Your task to perform on an android device: see tabs open on other devices in the chrome app Image 0: 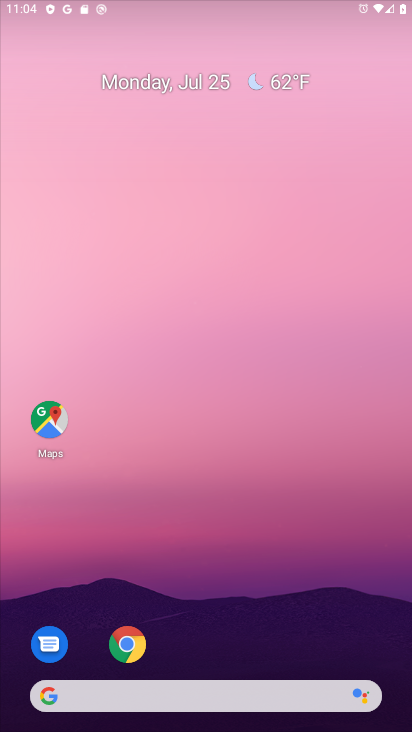
Step 0: drag from (297, 632) to (292, 135)
Your task to perform on an android device: see tabs open on other devices in the chrome app Image 1: 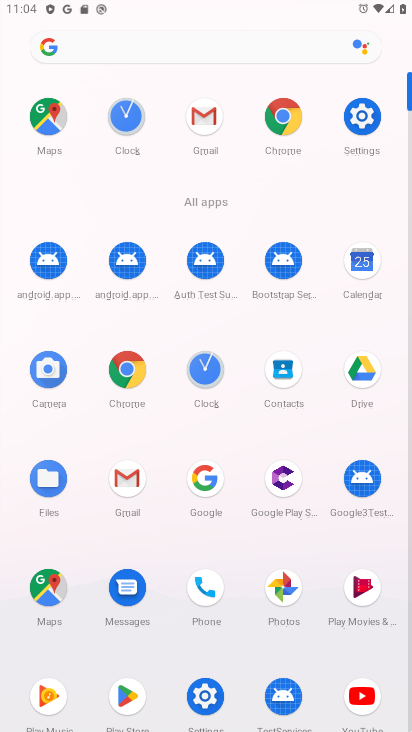
Step 1: click (283, 110)
Your task to perform on an android device: see tabs open on other devices in the chrome app Image 2: 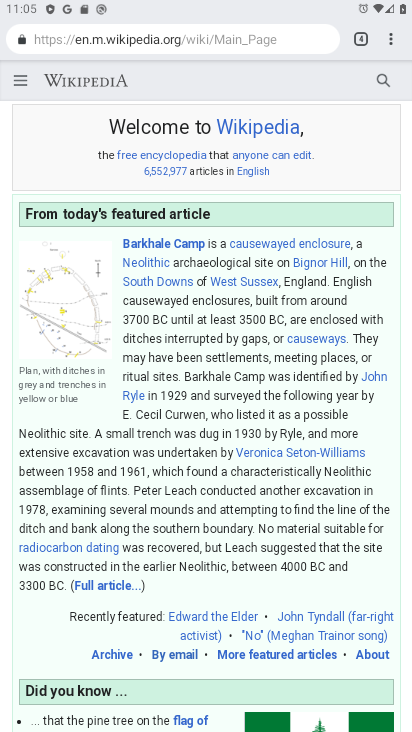
Step 2: press home button
Your task to perform on an android device: see tabs open on other devices in the chrome app Image 3: 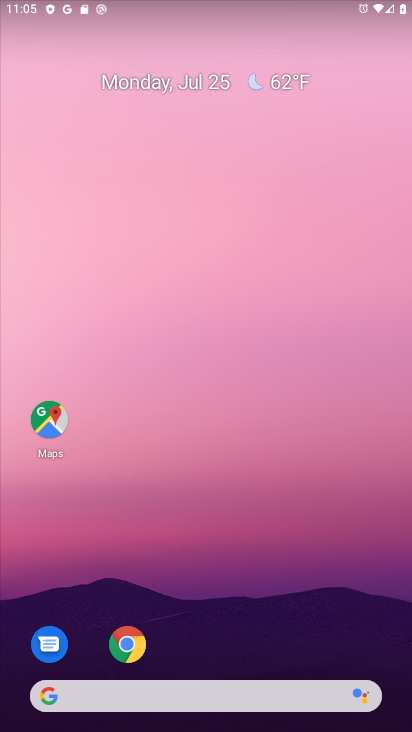
Step 3: click (123, 650)
Your task to perform on an android device: see tabs open on other devices in the chrome app Image 4: 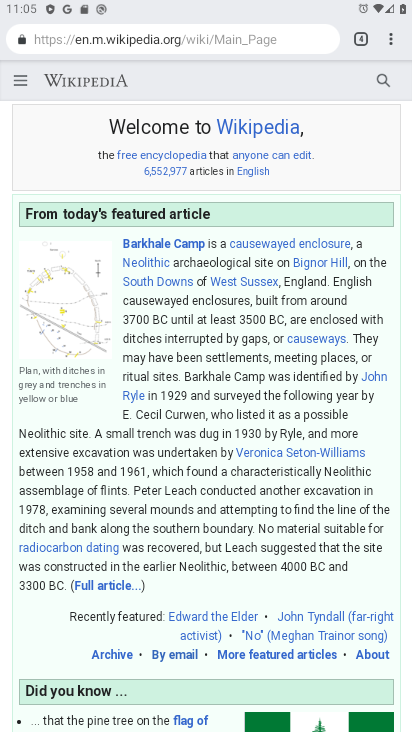
Step 4: click (400, 49)
Your task to perform on an android device: see tabs open on other devices in the chrome app Image 5: 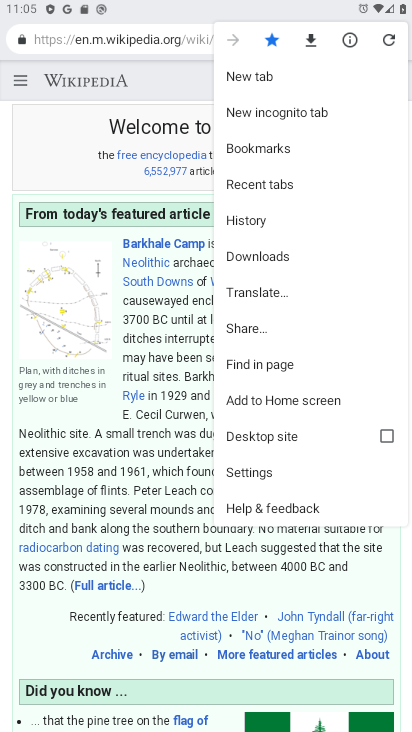
Step 5: click (264, 173)
Your task to perform on an android device: see tabs open on other devices in the chrome app Image 6: 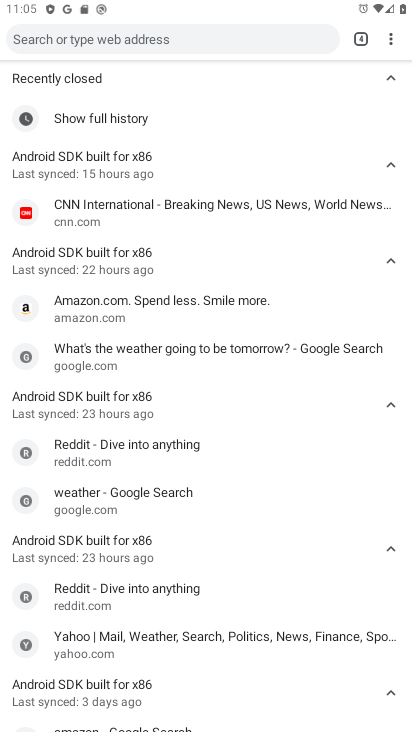
Step 6: task complete